Your task to perform on an android device: Search for the best rated desk chair on Article.com Image 0: 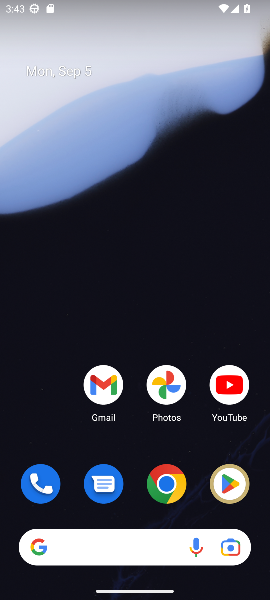
Step 0: click (171, 482)
Your task to perform on an android device: Search for the best rated desk chair on Article.com Image 1: 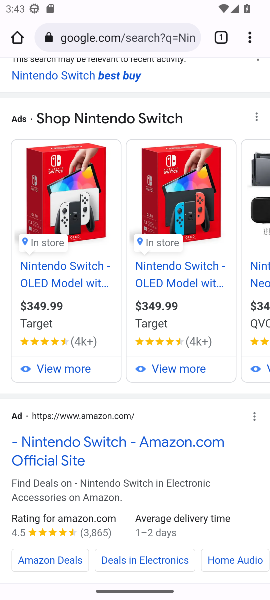
Step 1: click (158, 35)
Your task to perform on an android device: Search for the best rated desk chair on Article.com Image 2: 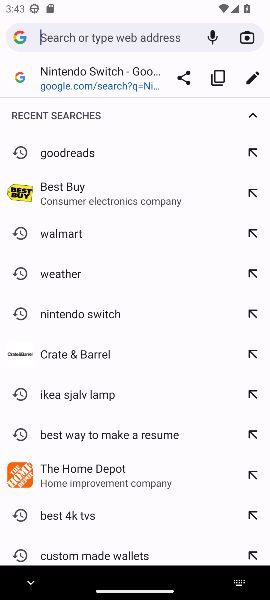
Step 2: type " Article.com"
Your task to perform on an android device: Search for the best rated desk chair on Article.com Image 3: 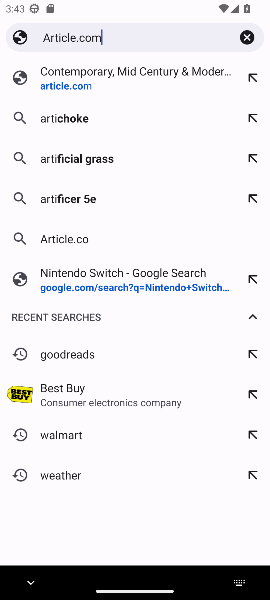
Step 3: press enter
Your task to perform on an android device: Search for the best rated desk chair on Article.com Image 4: 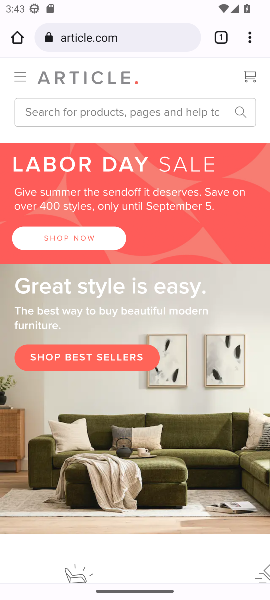
Step 4: click (127, 112)
Your task to perform on an android device: Search for the best rated desk chair on Article.com Image 5: 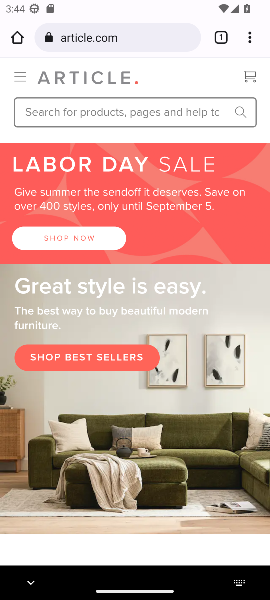
Step 5: type "desk chair"
Your task to perform on an android device: Search for the best rated desk chair on Article.com Image 6: 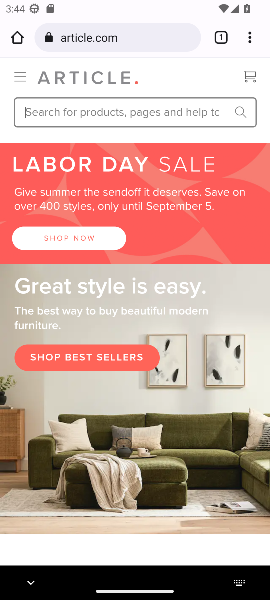
Step 6: press enter
Your task to perform on an android device: Search for the best rated desk chair on Article.com Image 7: 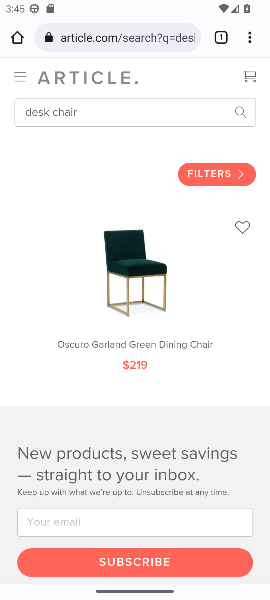
Step 7: task complete